Your task to perform on an android device: Go to privacy settings Image 0: 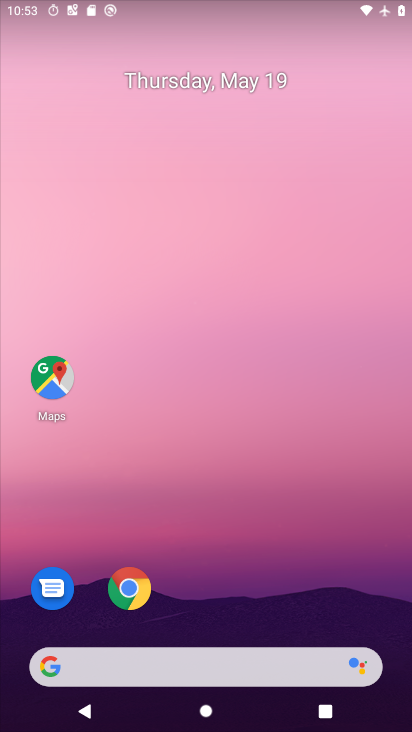
Step 0: drag from (155, 669) to (292, 115)
Your task to perform on an android device: Go to privacy settings Image 1: 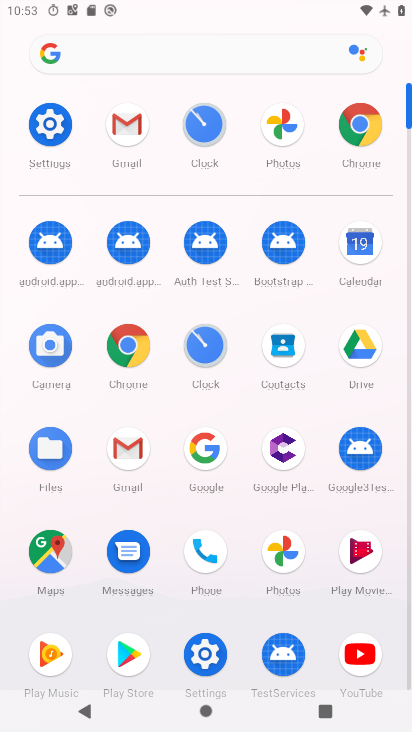
Step 1: click (46, 125)
Your task to perform on an android device: Go to privacy settings Image 2: 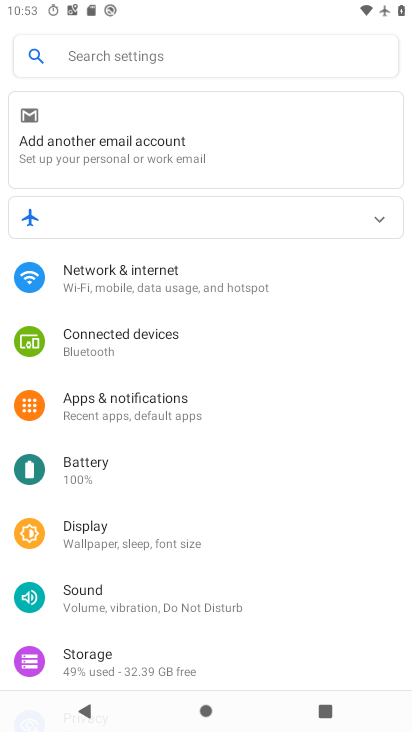
Step 2: drag from (237, 628) to (303, 315)
Your task to perform on an android device: Go to privacy settings Image 3: 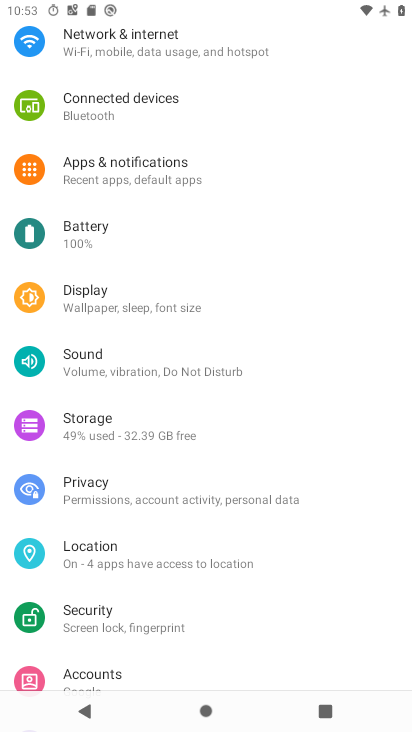
Step 3: click (109, 494)
Your task to perform on an android device: Go to privacy settings Image 4: 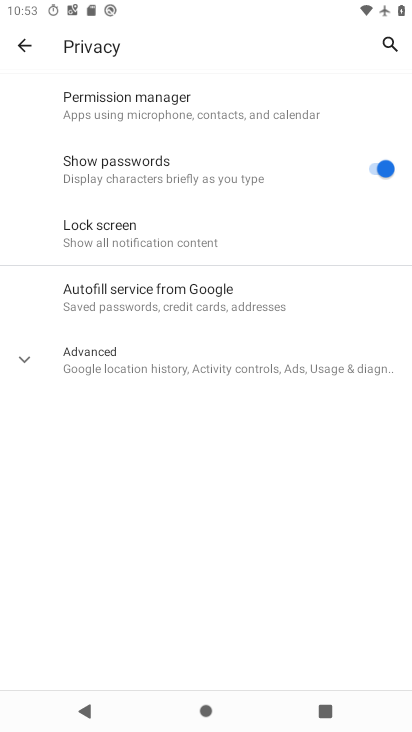
Step 4: task complete